Your task to perform on an android device: Open the phone app and click the voicemail tab. Image 0: 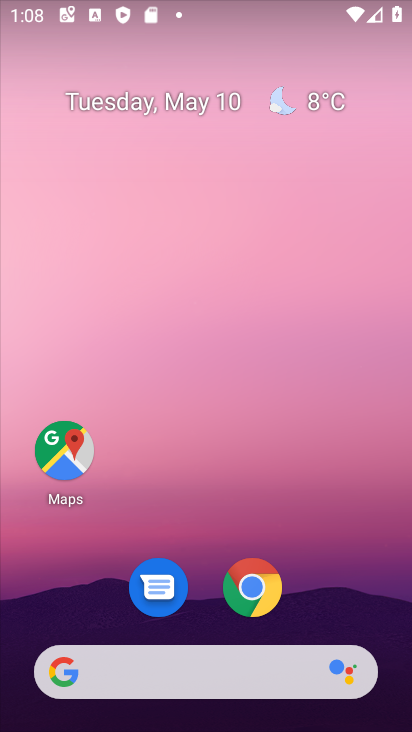
Step 0: click (400, 273)
Your task to perform on an android device: Open the phone app and click the voicemail tab. Image 1: 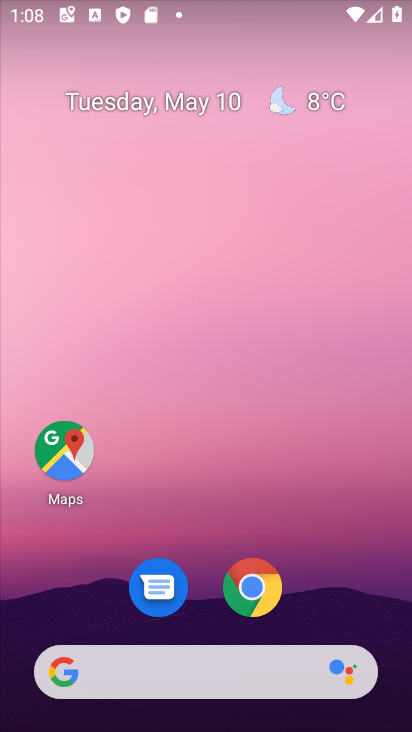
Step 1: drag from (390, 691) to (364, 159)
Your task to perform on an android device: Open the phone app and click the voicemail tab. Image 2: 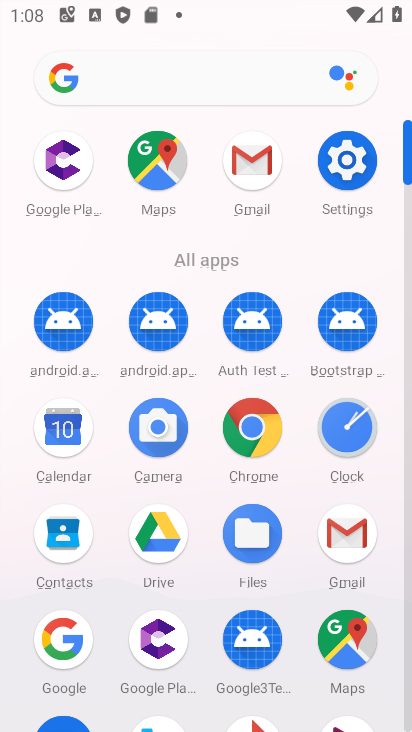
Step 2: drag from (411, 137) to (411, 84)
Your task to perform on an android device: Open the phone app and click the voicemail tab. Image 3: 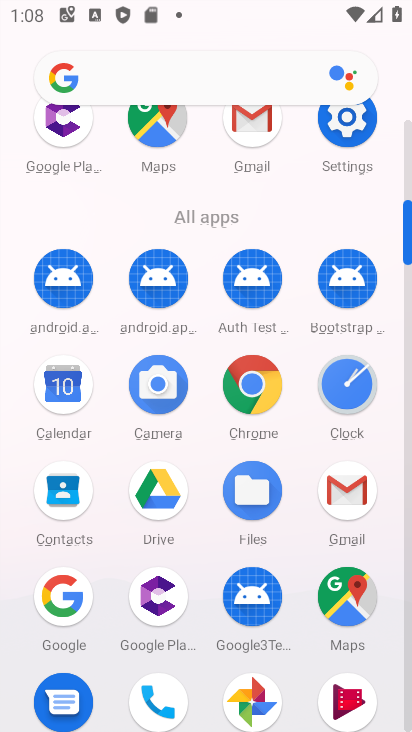
Step 3: click (170, 685)
Your task to perform on an android device: Open the phone app and click the voicemail tab. Image 4: 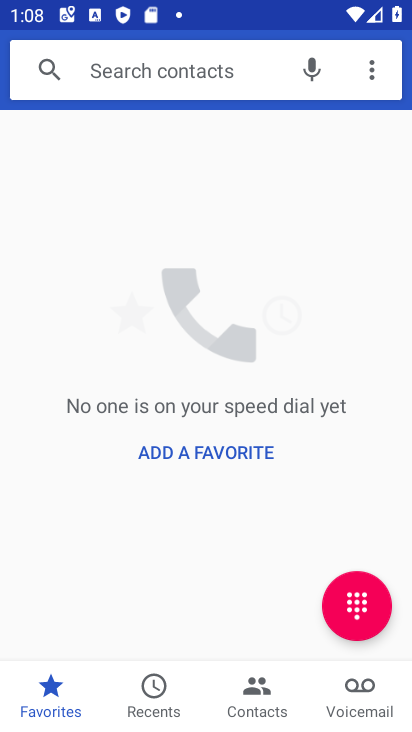
Step 4: click (350, 697)
Your task to perform on an android device: Open the phone app and click the voicemail tab. Image 5: 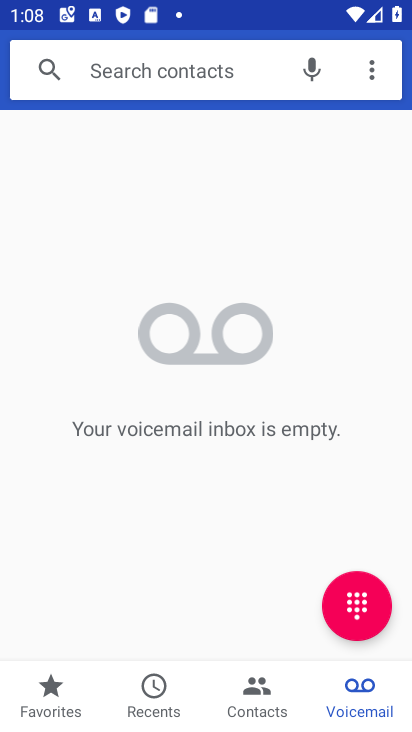
Step 5: task complete